Your task to perform on an android device: check out phone information Image 0: 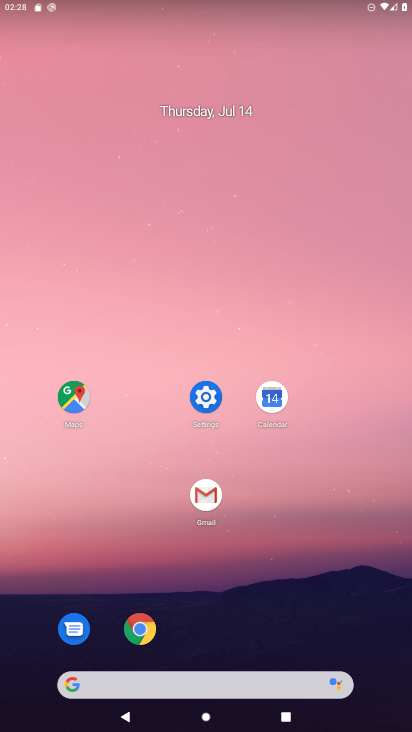
Step 0: drag from (390, 654) to (393, 157)
Your task to perform on an android device: check out phone information Image 1: 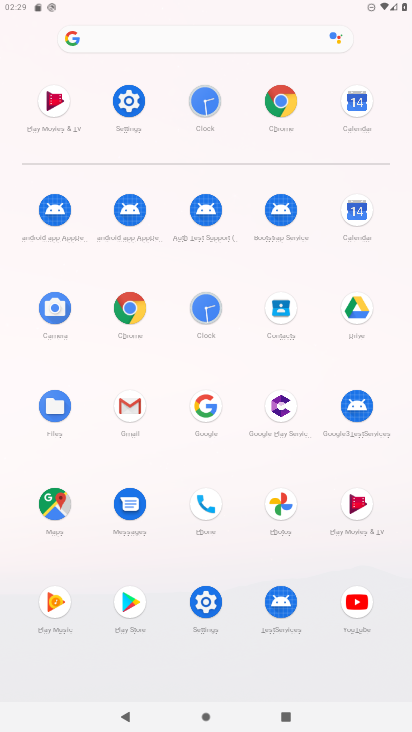
Step 1: click (190, 604)
Your task to perform on an android device: check out phone information Image 2: 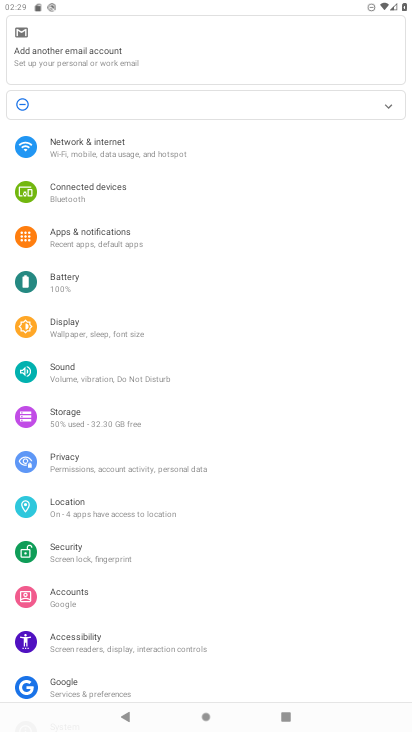
Step 2: drag from (247, 617) to (313, 293)
Your task to perform on an android device: check out phone information Image 3: 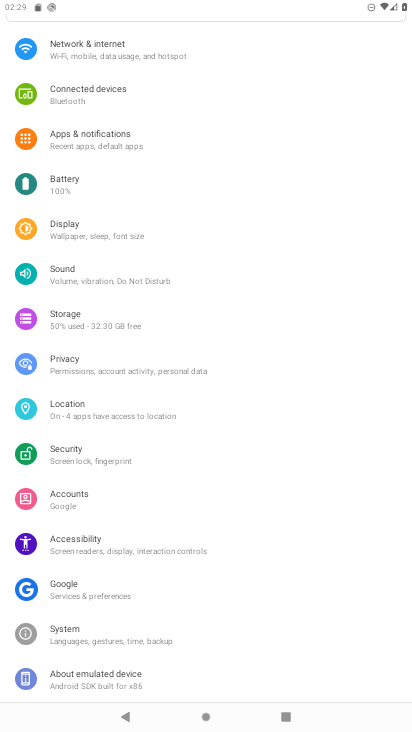
Step 3: click (77, 673)
Your task to perform on an android device: check out phone information Image 4: 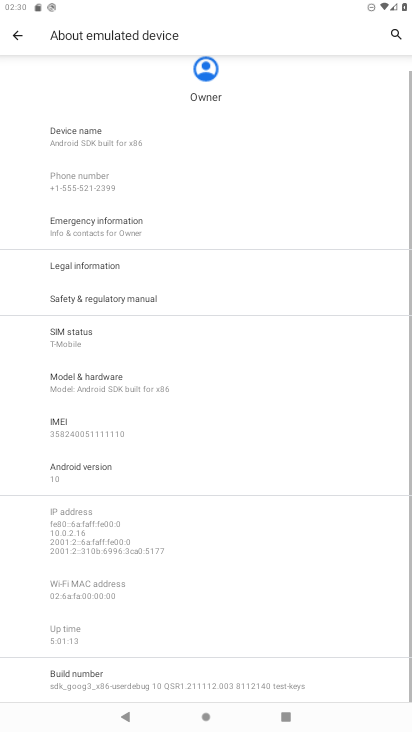
Step 4: task complete